Your task to perform on an android device: turn on data saver in the chrome app Image 0: 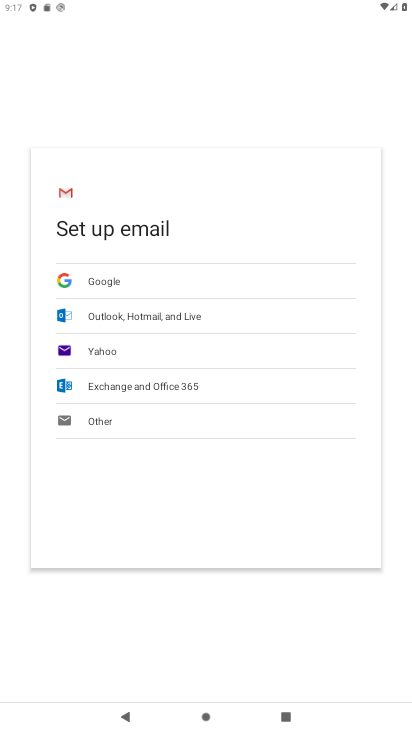
Step 0: press home button
Your task to perform on an android device: turn on data saver in the chrome app Image 1: 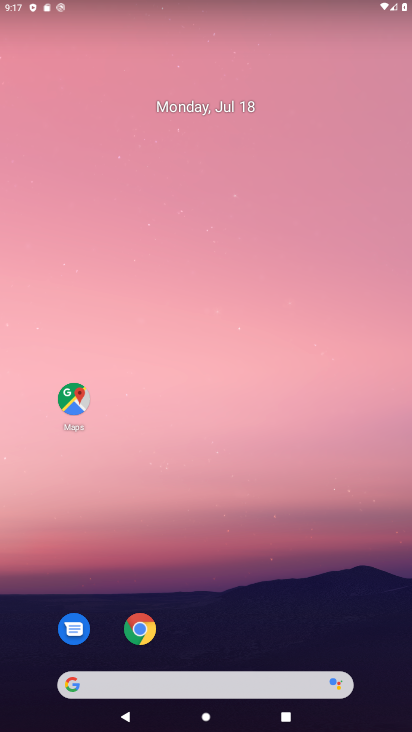
Step 1: click (144, 625)
Your task to perform on an android device: turn on data saver in the chrome app Image 2: 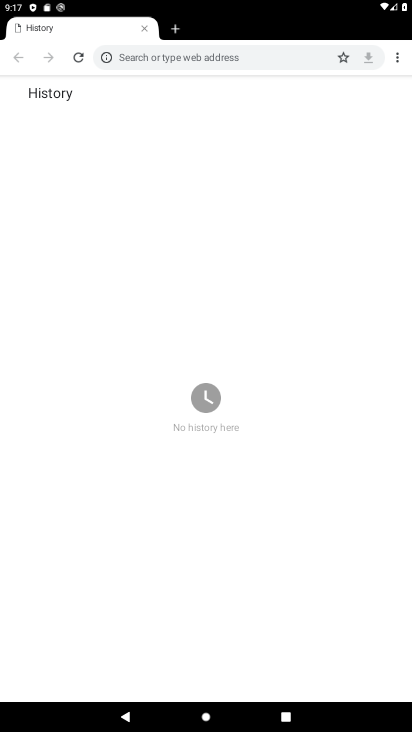
Step 2: click (400, 46)
Your task to perform on an android device: turn on data saver in the chrome app Image 3: 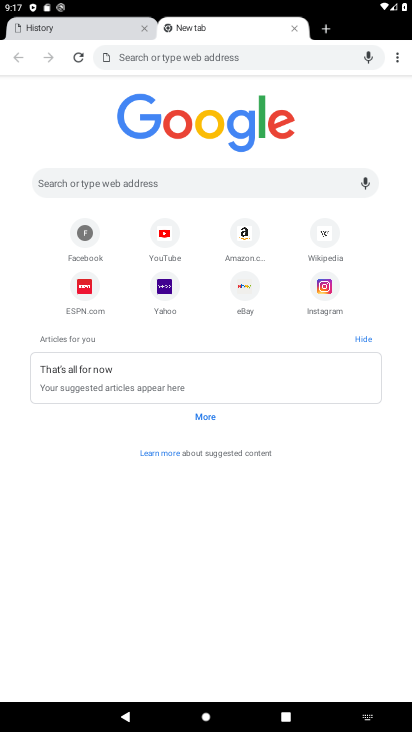
Step 3: drag from (392, 56) to (305, 260)
Your task to perform on an android device: turn on data saver in the chrome app Image 4: 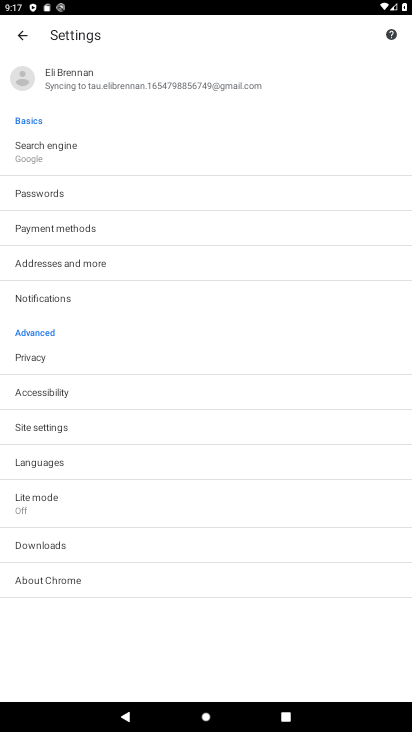
Step 4: click (44, 493)
Your task to perform on an android device: turn on data saver in the chrome app Image 5: 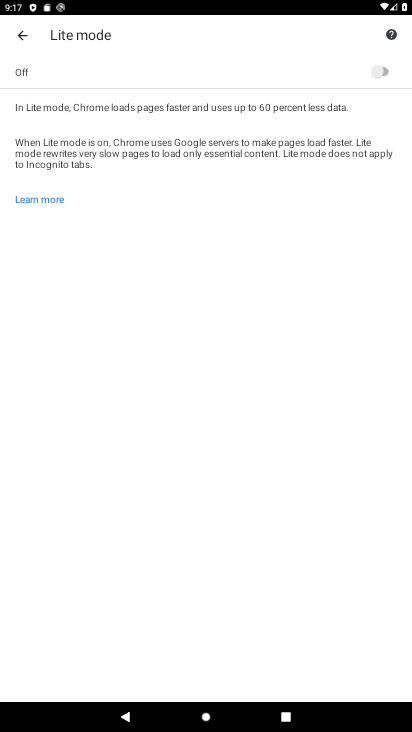
Step 5: click (389, 75)
Your task to perform on an android device: turn on data saver in the chrome app Image 6: 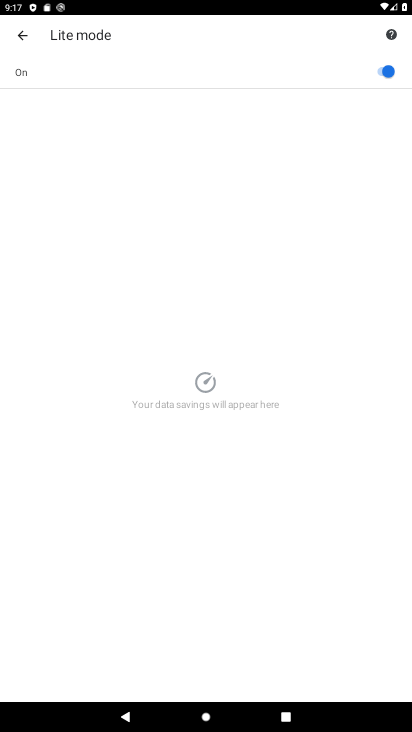
Step 6: task complete